Your task to perform on an android device: Open maps Image 0: 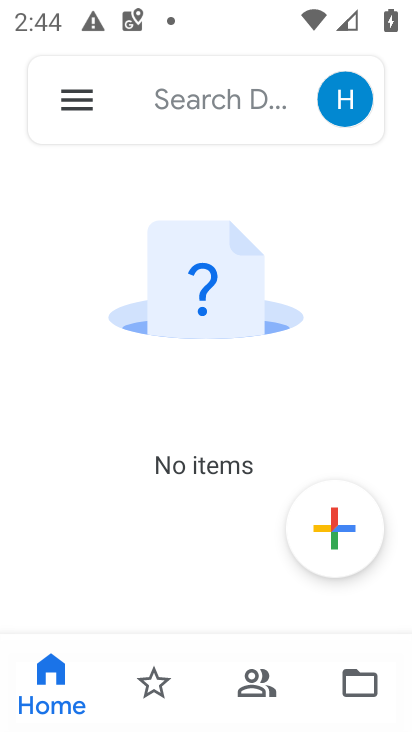
Step 0: press home button
Your task to perform on an android device: Open maps Image 1: 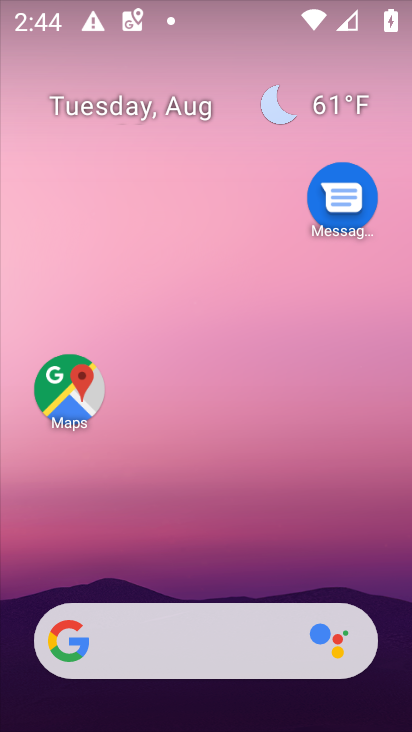
Step 1: click (56, 404)
Your task to perform on an android device: Open maps Image 2: 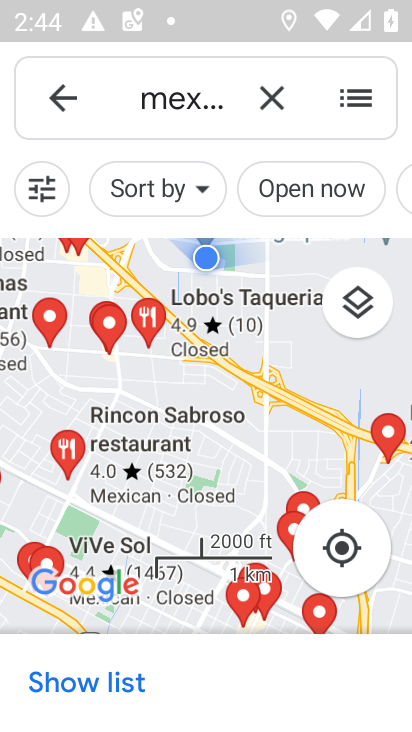
Step 2: task complete